Your task to perform on an android device: Set the phone to "Do not disturb". Image 0: 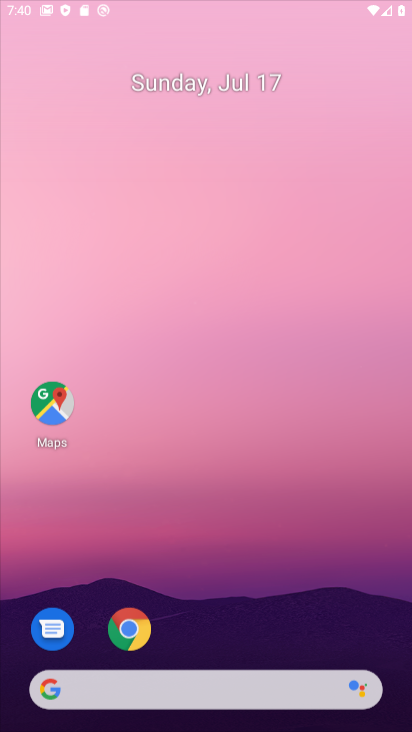
Step 0: press home button
Your task to perform on an android device: Set the phone to "Do not disturb". Image 1: 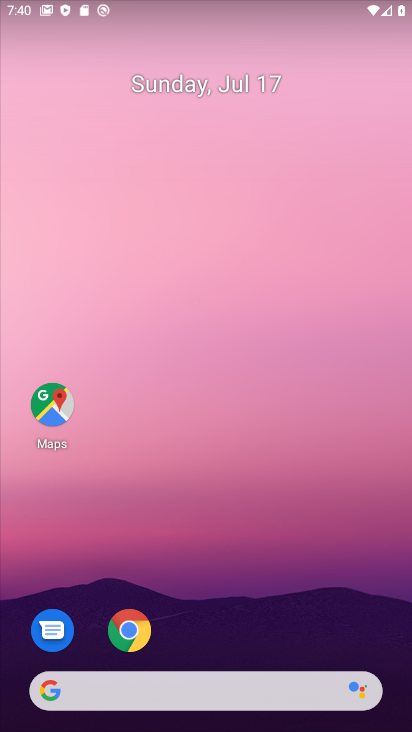
Step 1: click (208, 679)
Your task to perform on an android device: Set the phone to "Do not disturb". Image 2: 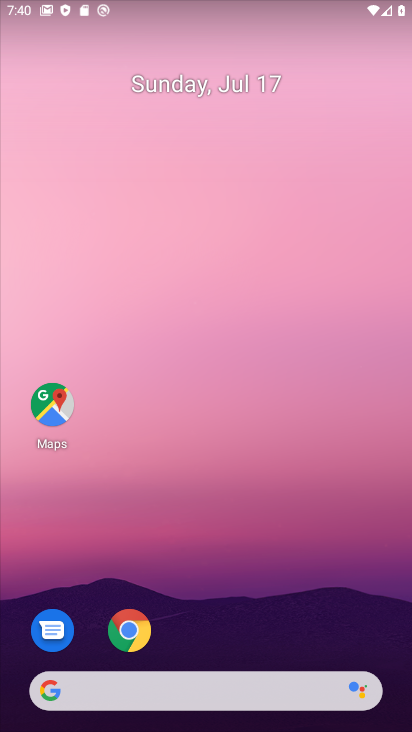
Step 2: drag from (146, 7) to (257, 725)
Your task to perform on an android device: Set the phone to "Do not disturb". Image 3: 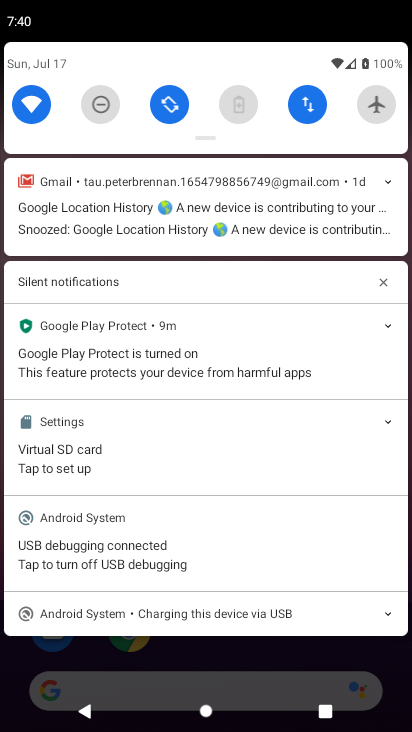
Step 3: click (96, 104)
Your task to perform on an android device: Set the phone to "Do not disturb". Image 4: 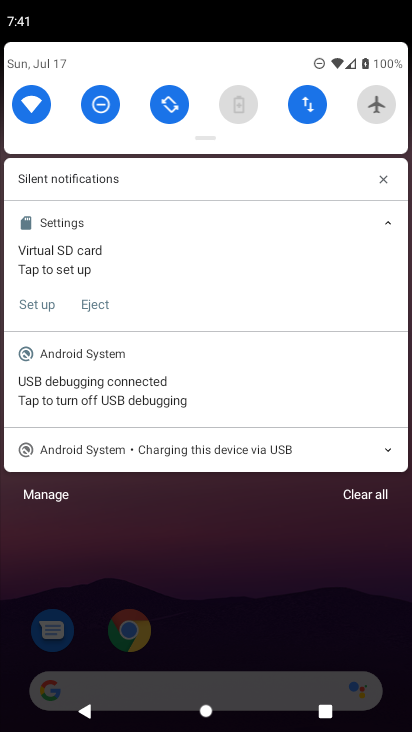
Step 4: task complete